Your task to perform on an android device: clear history in the chrome app Image 0: 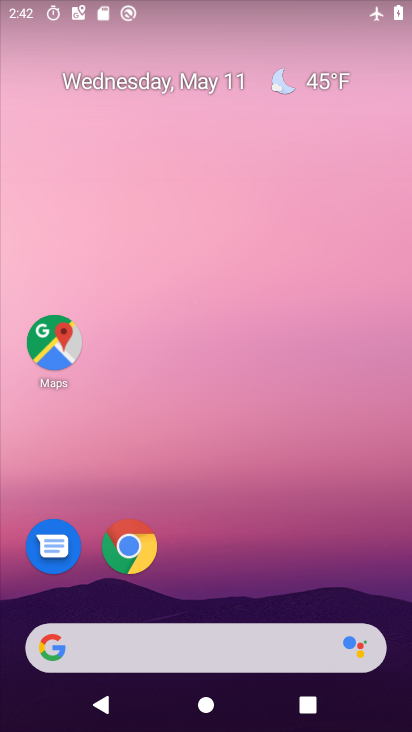
Step 0: click (131, 537)
Your task to perform on an android device: clear history in the chrome app Image 1: 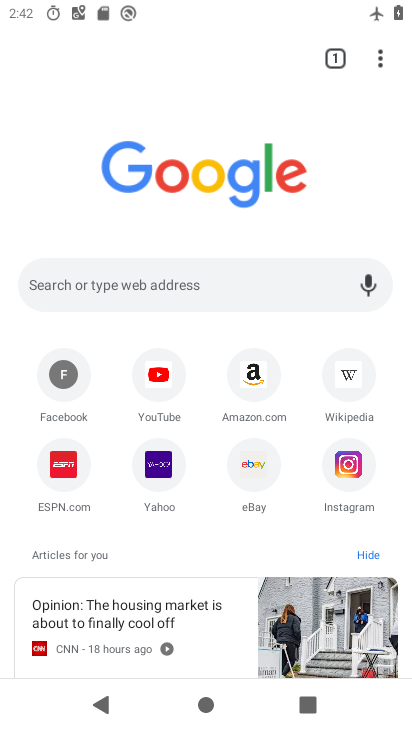
Step 1: click (385, 59)
Your task to perform on an android device: clear history in the chrome app Image 2: 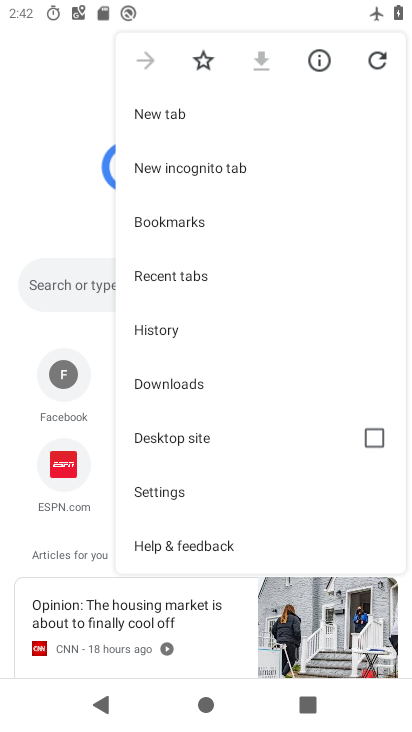
Step 2: click (157, 329)
Your task to perform on an android device: clear history in the chrome app Image 3: 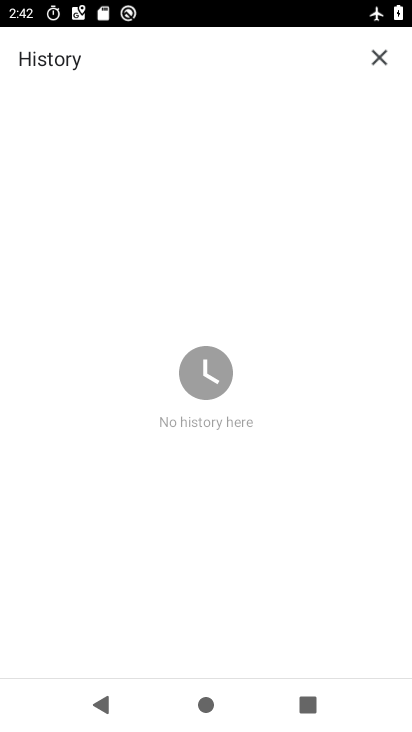
Step 3: task complete